Your task to perform on an android device: turn on showing notifications on the lock screen Image 0: 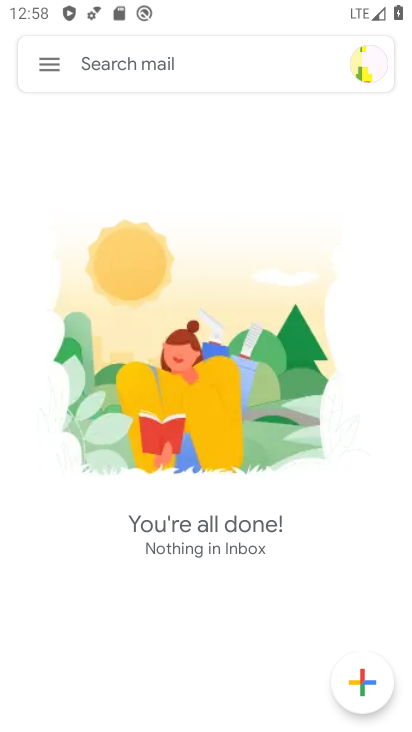
Step 0: press home button
Your task to perform on an android device: turn on showing notifications on the lock screen Image 1: 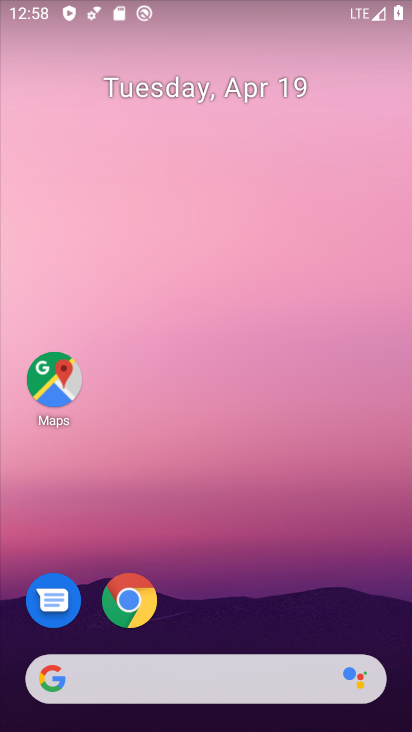
Step 1: drag from (230, 646) to (169, 10)
Your task to perform on an android device: turn on showing notifications on the lock screen Image 2: 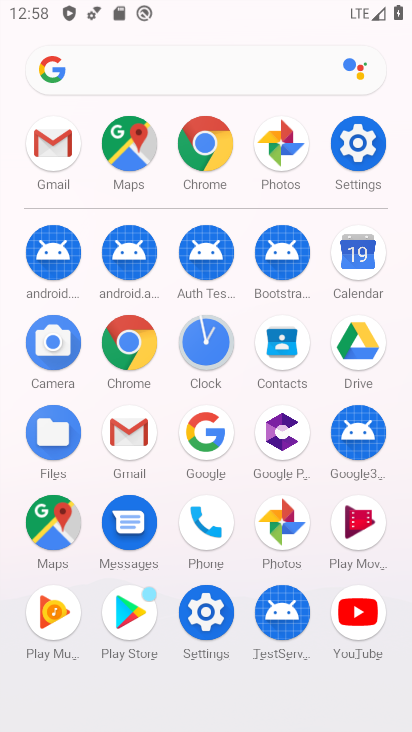
Step 2: click (339, 141)
Your task to perform on an android device: turn on showing notifications on the lock screen Image 3: 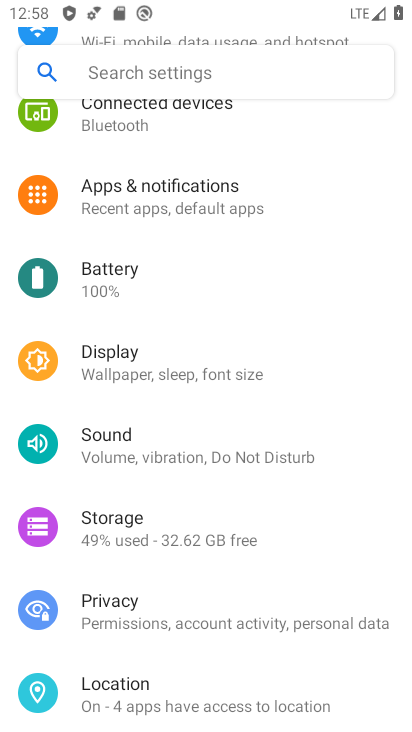
Step 3: click (161, 205)
Your task to perform on an android device: turn on showing notifications on the lock screen Image 4: 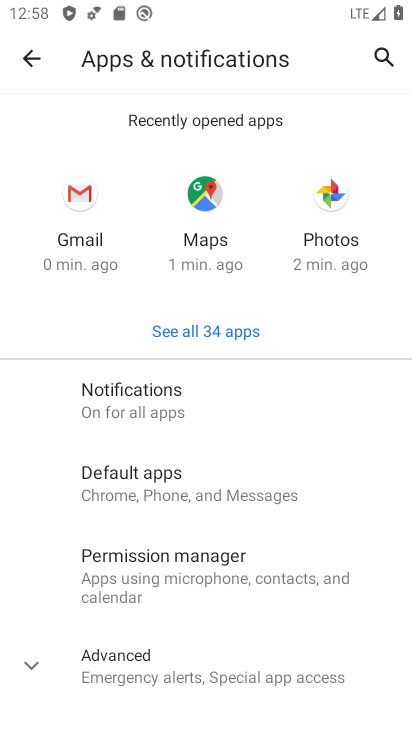
Step 4: click (154, 388)
Your task to perform on an android device: turn on showing notifications on the lock screen Image 5: 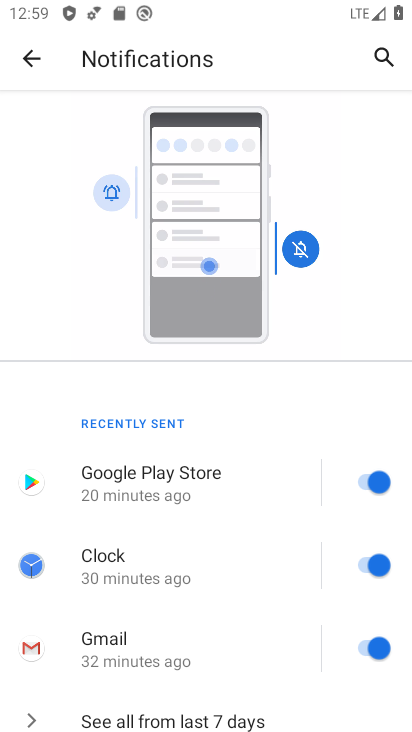
Step 5: drag from (214, 627) to (178, 108)
Your task to perform on an android device: turn on showing notifications on the lock screen Image 6: 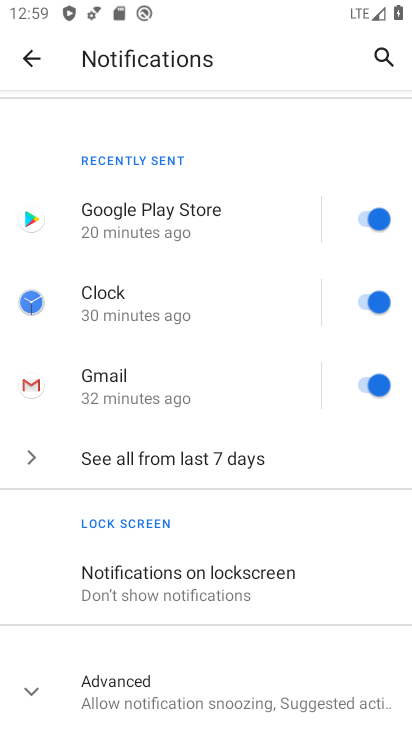
Step 6: click (212, 585)
Your task to perform on an android device: turn on showing notifications on the lock screen Image 7: 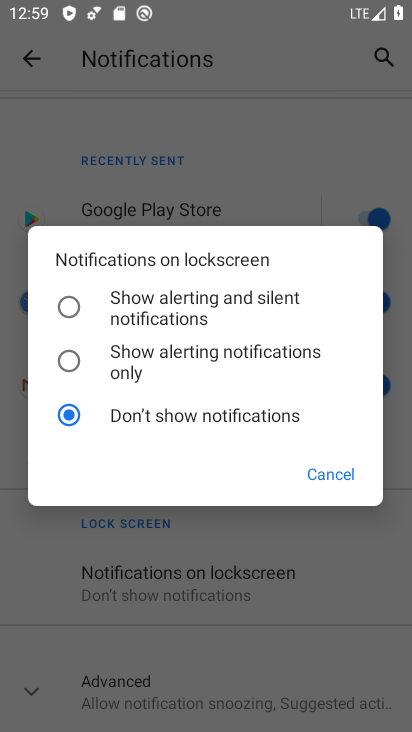
Step 7: click (108, 298)
Your task to perform on an android device: turn on showing notifications on the lock screen Image 8: 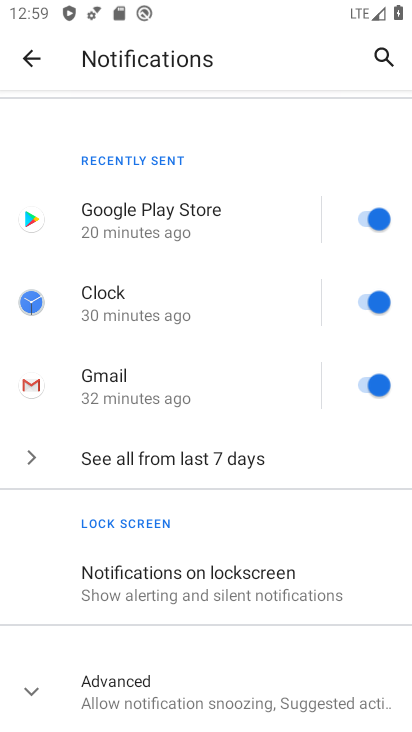
Step 8: task complete